Your task to perform on an android device: Open CNN.com Image 0: 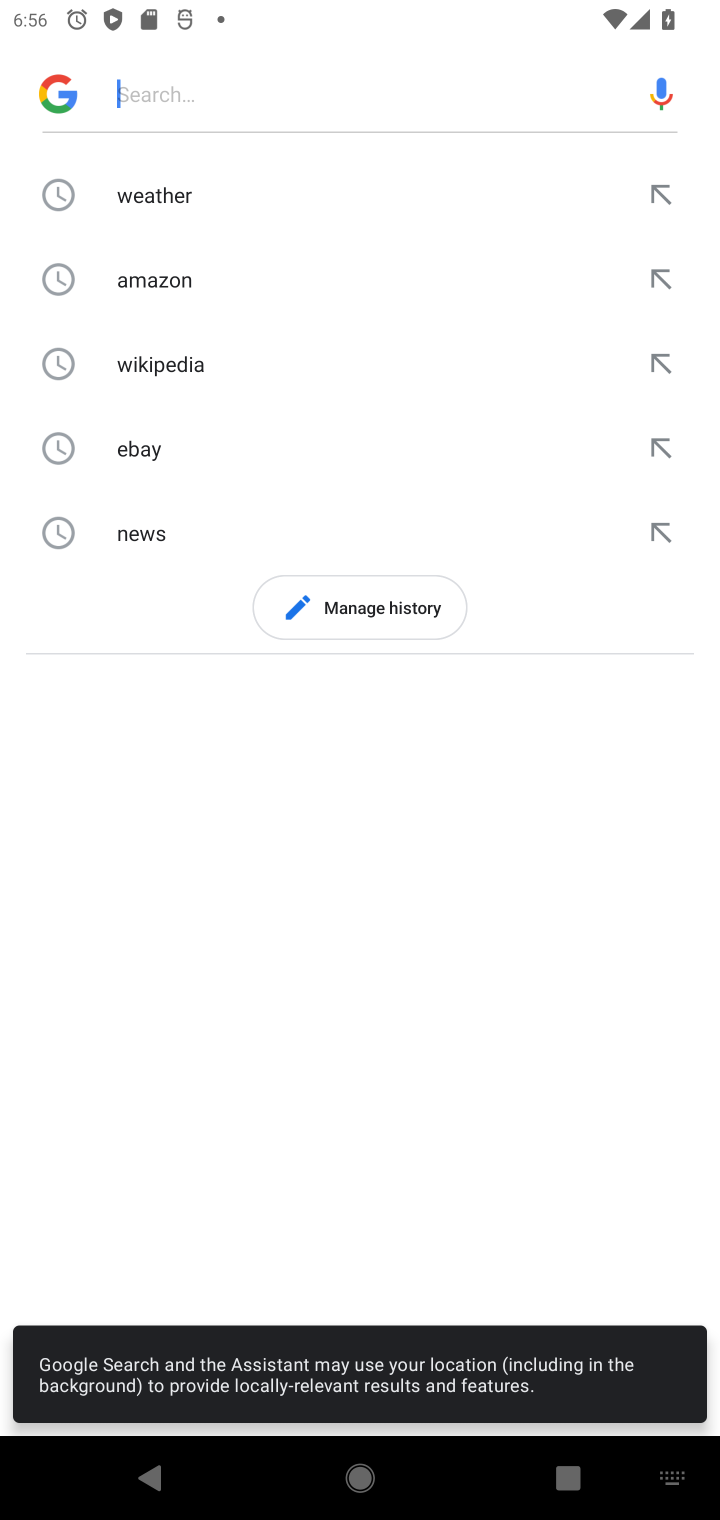
Step 0: press home button
Your task to perform on an android device: Open CNN.com Image 1: 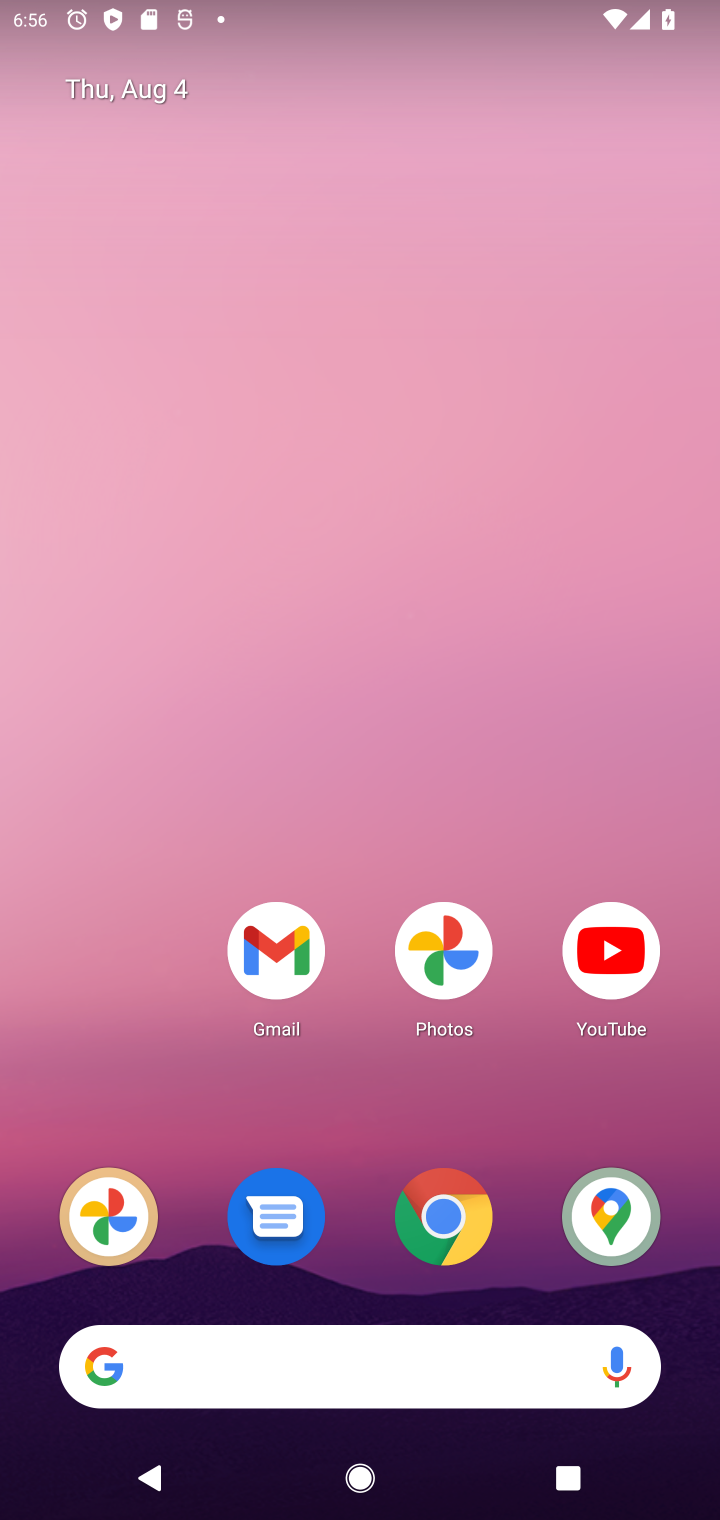
Step 1: click (401, 1190)
Your task to perform on an android device: Open CNN.com Image 2: 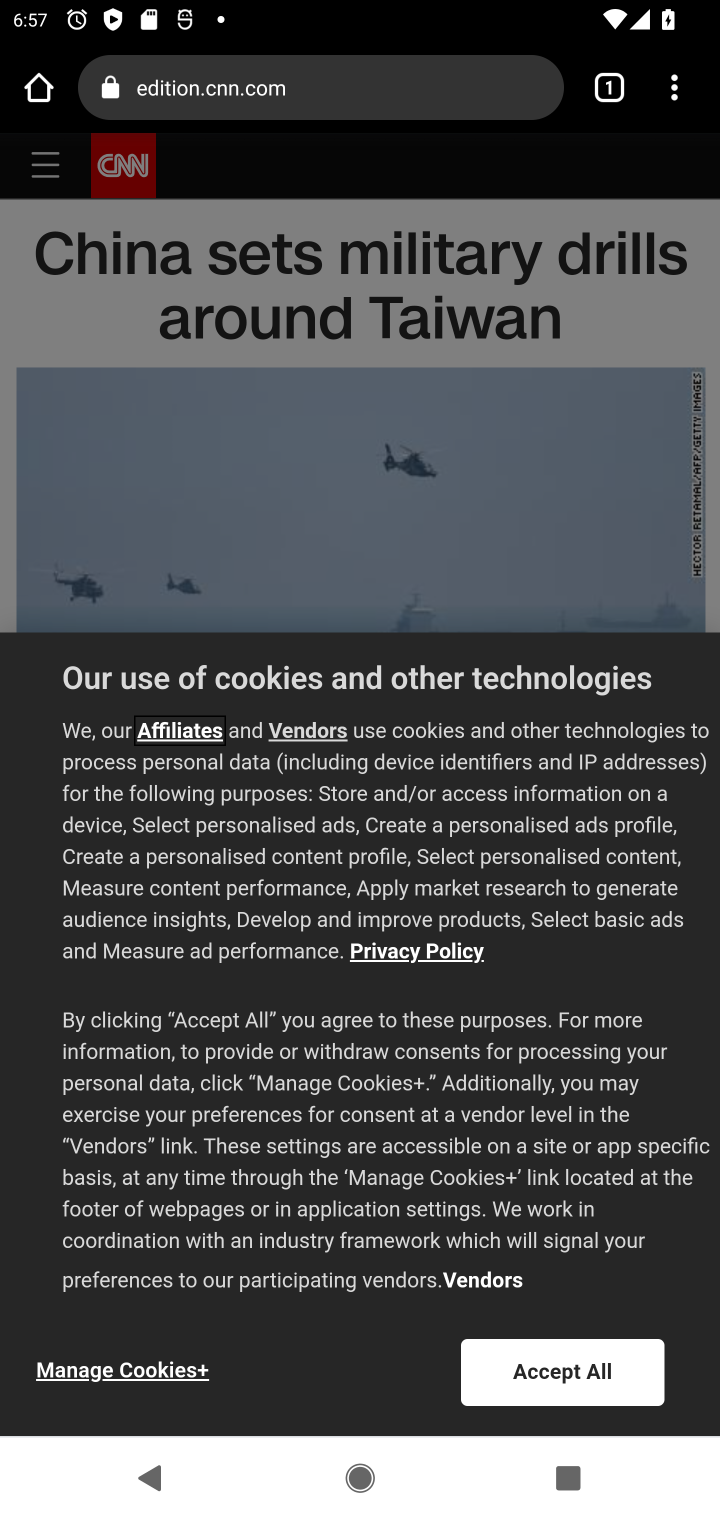
Step 2: task complete